Your task to perform on an android device: toggle data saver in the chrome app Image 0: 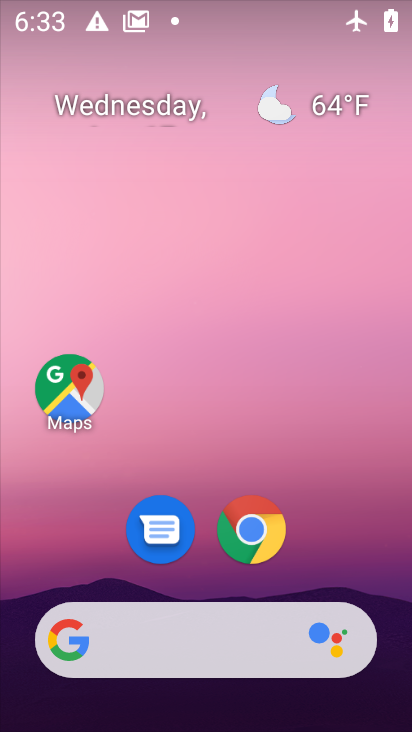
Step 0: click (245, 536)
Your task to perform on an android device: toggle data saver in the chrome app Image 1: 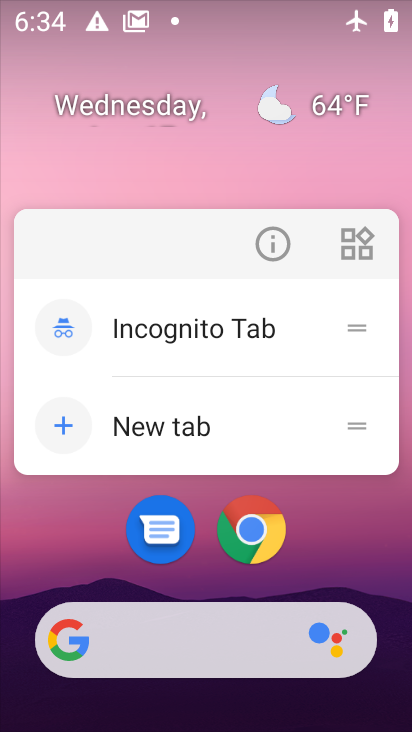
Step 1: click (251, 522)
Your task to perform on an android device: toggle data saver in the chrome app Image 2: 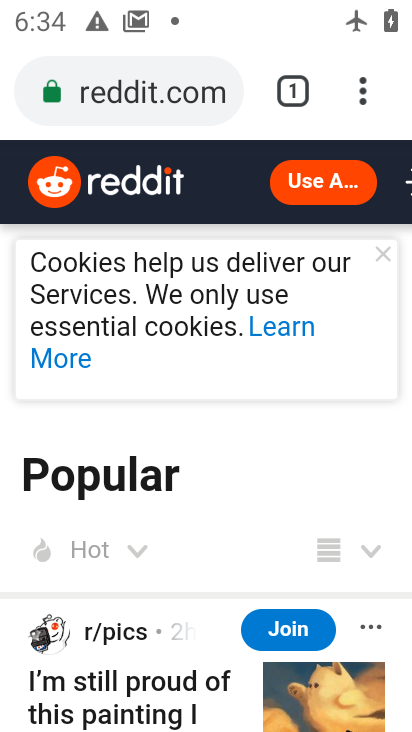
Step 2: click (362, 89)
Your task to perform on an android device: toggle data saver in the chrome app Image 3: 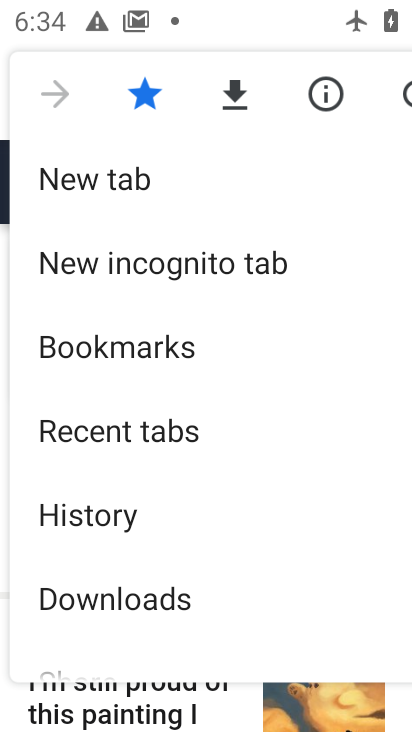
Step 3: drag from (139, 593) to (177, 424)
Your task to perform on an android device: toggle data saver in the chrome app Image 4: 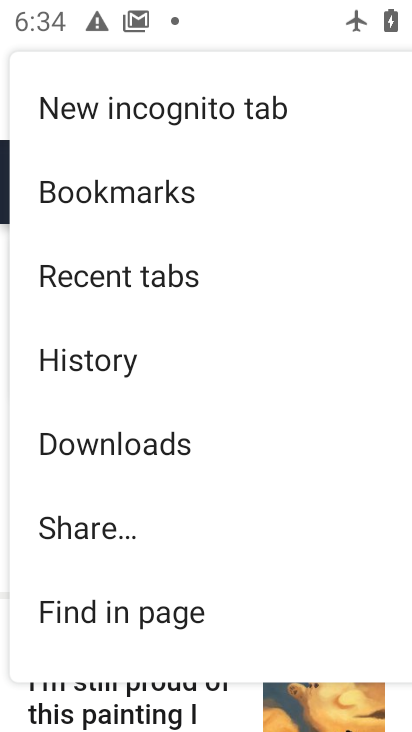
Step 4: drag from (191, 486) to (181, 139)
Your task to perform on an android device: toggle data saver in the chrome app Image 5: 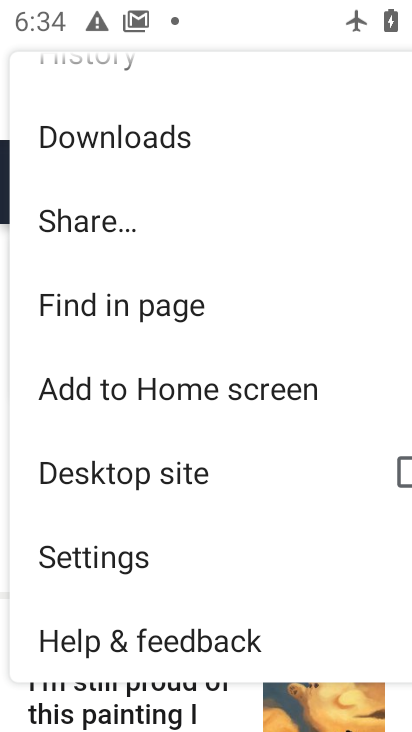
Step 5: click (106, 552)
Your task to perform on an android device: toggle data saver in the chrome app Image 6: 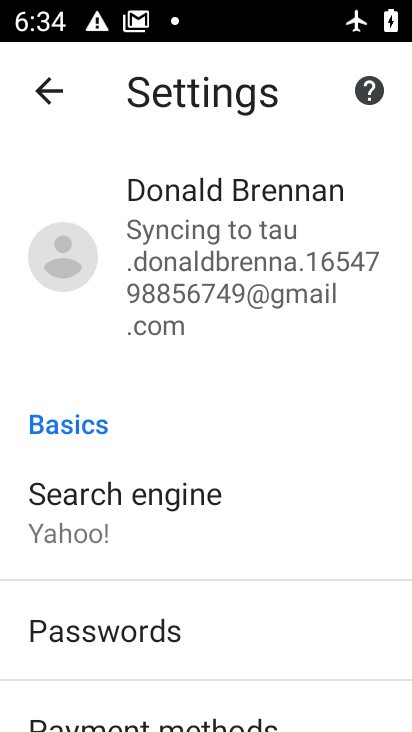
Step 6: drag from (215, 661) to (236, 261)
Your task to perform on an android device: toggle data saver in the chrome app Image 7: 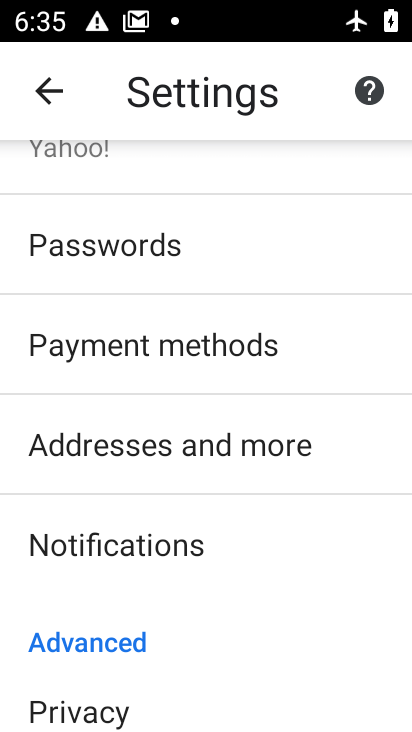
Step 7: drag from (217, 643) to (217, 379)
Your task to perform on an android device: toggle data saver in the chrome app Image 8: 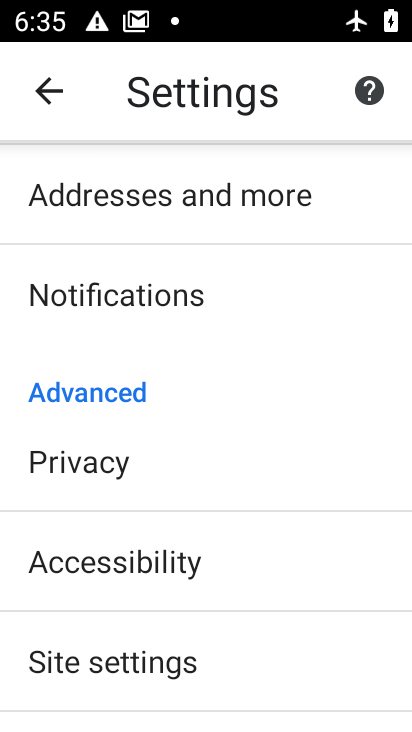
Step 8: drag from (237, 635) to (237, 352)
Your task to perform on an android device: toggle data saver in the chrome app Image 9: 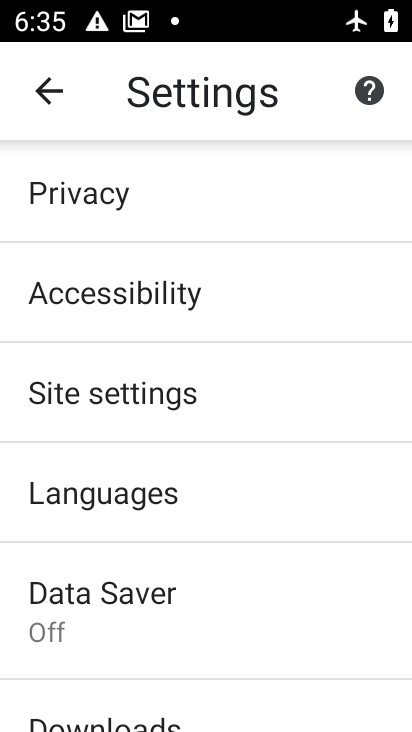
Step 9: click (129, 613)
Your task to perform on an android device: toggle data saver in the chrome app Image 10: 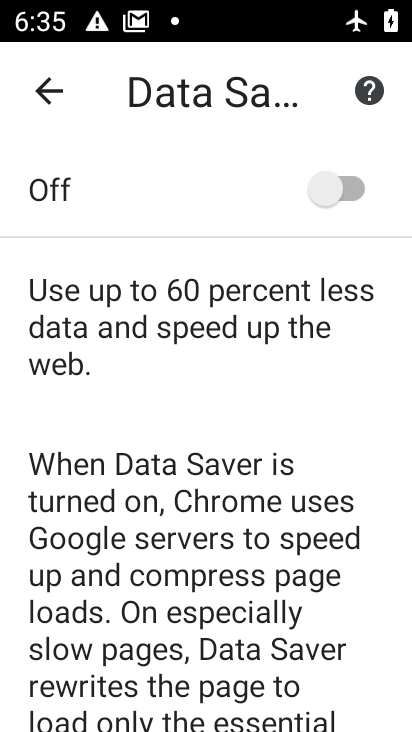
Step 10: click (363, 187)
Your task to perform on an android device: toggle data saver in the chrome app Image 11: 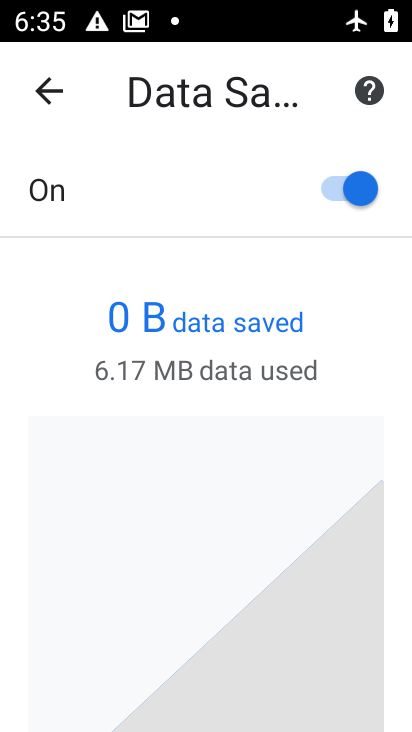
Step 11: task complete